Your task to perform on an android device: Open Android settings Image 0: 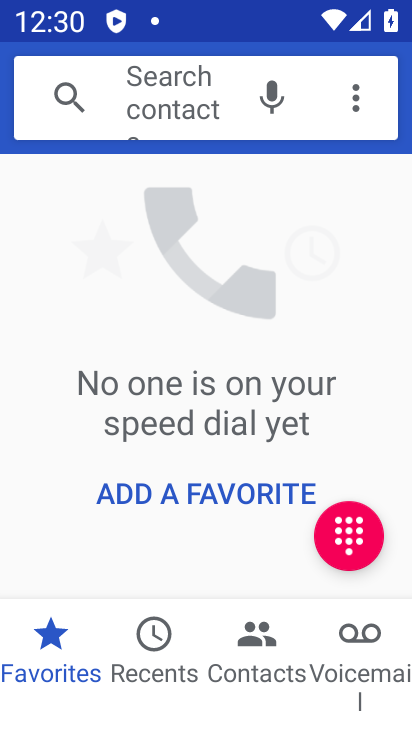
Step 0: press home button
Your task to perform on an android device: Open Android settings Image 1: 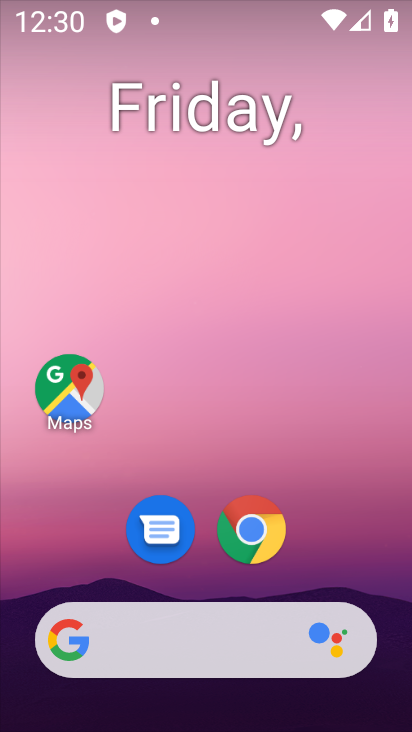
Step 1: drag from (182, 461) to (181, 187)
Your task to perform on an android device: Open Android settings Image 2: 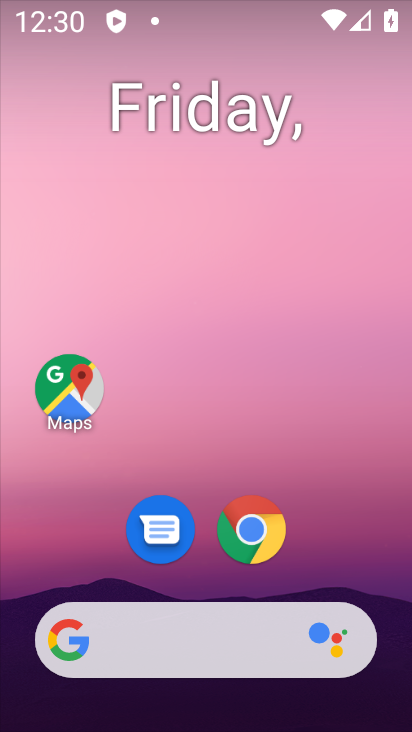
Step 2: drag from (225, 606) to (227, 217)
Your task to perform on an android device: Open Android settings Image 3: 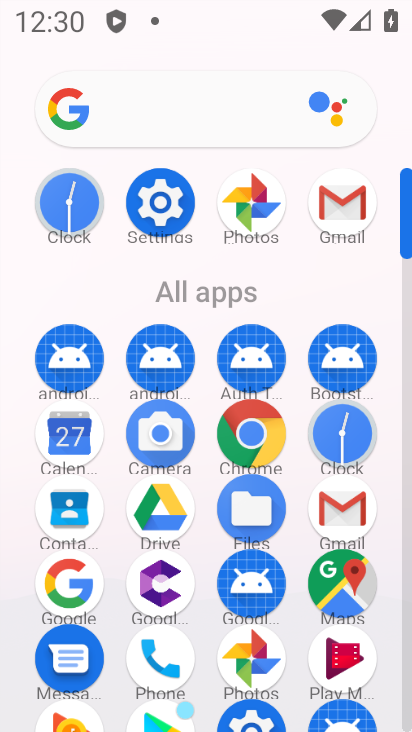
Step 3: click (170, 195)
Your task to perform on an android device: Open Android settings Image 4: 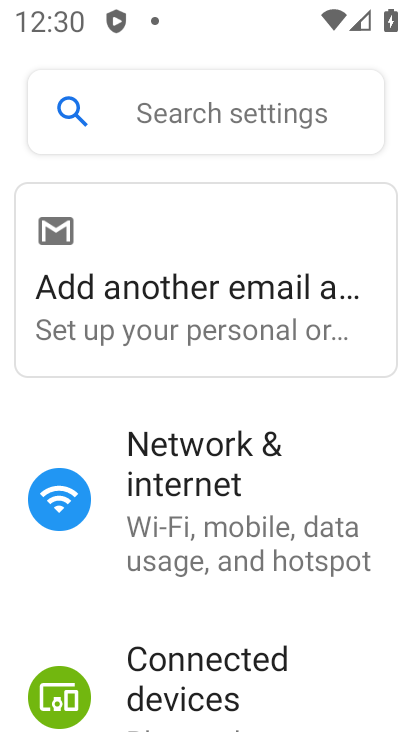
Step 4: task complete